Your task to perform on an android device: open a new tab in the chrome app Image 0: 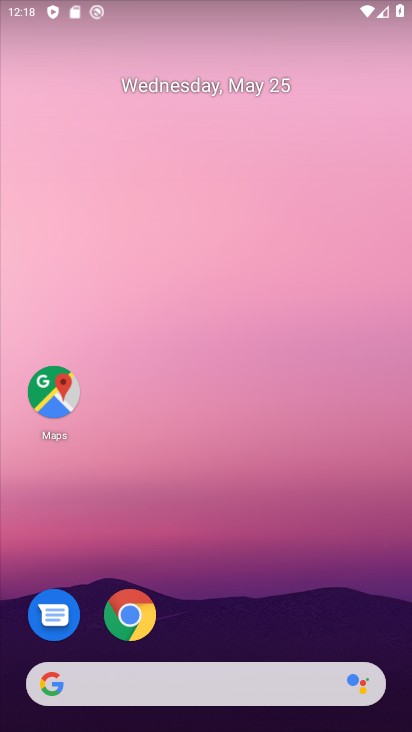
Step 0: click (124, 599)
Your task to perform on an android device: open a new tab in the chrome app Image 1: 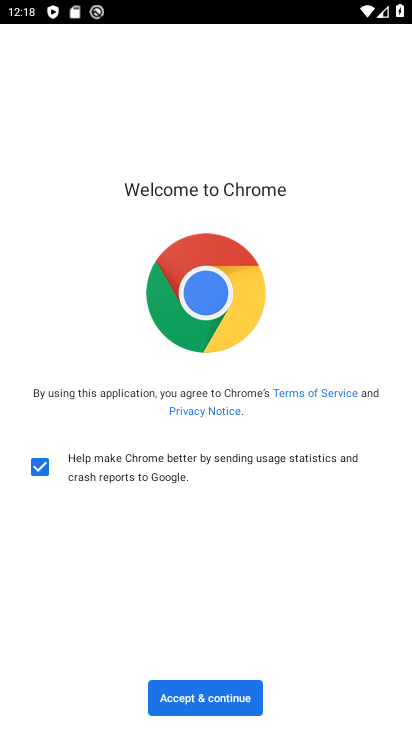
Step 1: click (193, 702)
Your task to perform on an android device: open a new tab in the chrome app Image 2: 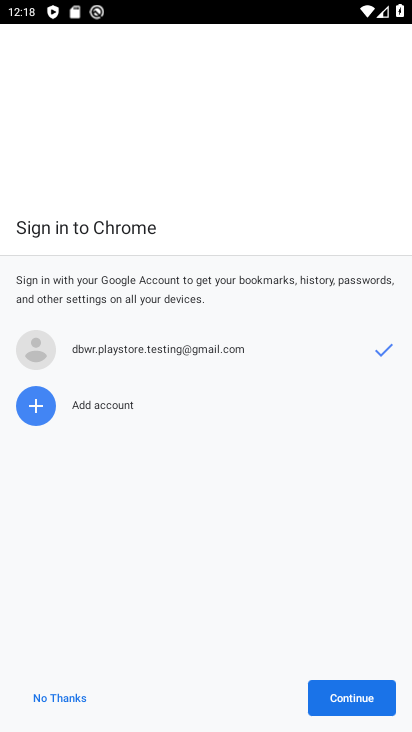
Step 2: click (357, 698)
Your task to perform on an android device: open a new tab in the chrome app Image 3: 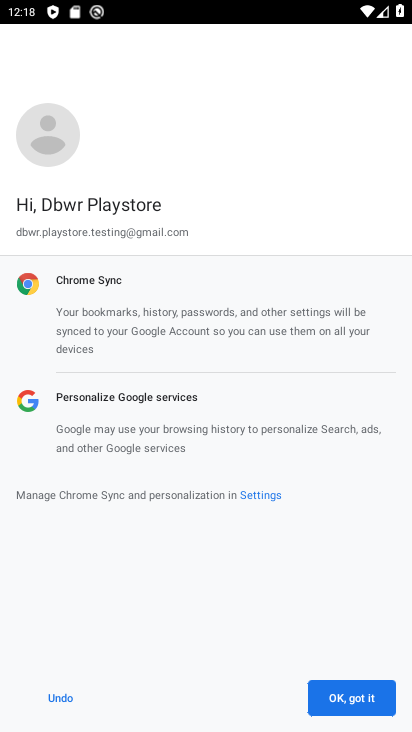
Step 3: click (357, 698)
Your task to perform on an android device: open a new tab in the chrome app Image 4: 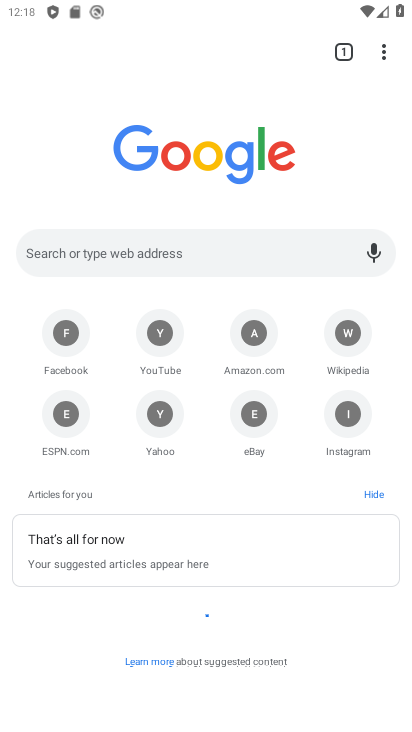
Step 4: task complete